Your task to perform on an android device: Open calendar and show me the first week of next month Image 0: 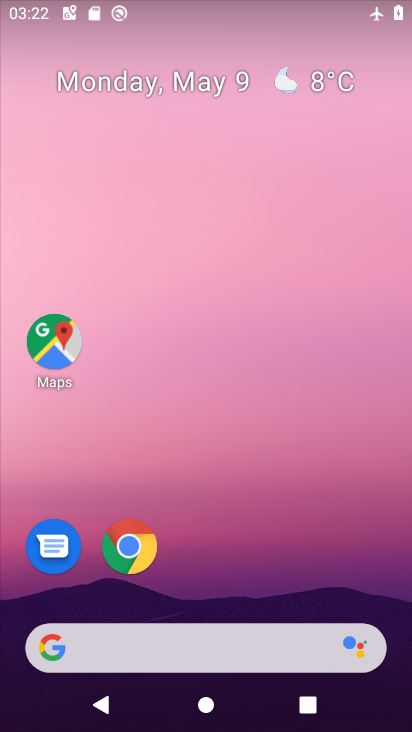
Step 0: drag from (301, 530) to (257, 115)
Your task to perform on an android device: Open calendar and show me the first week of next month Image 1: 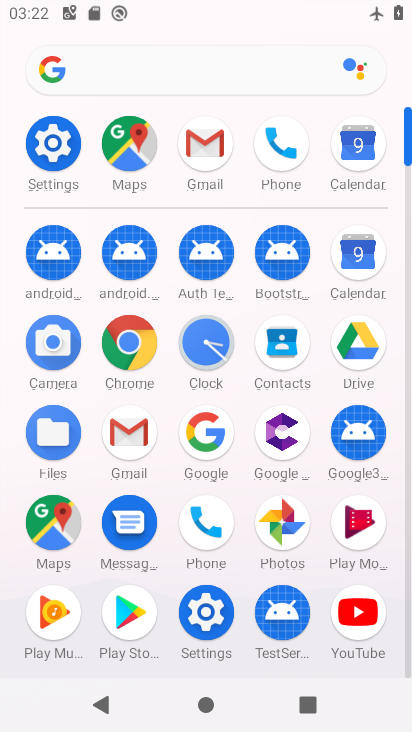
Step 1: click (357, 154)
Your task to perform on an android device: Open calendar and show me the first week of next month Image 2: 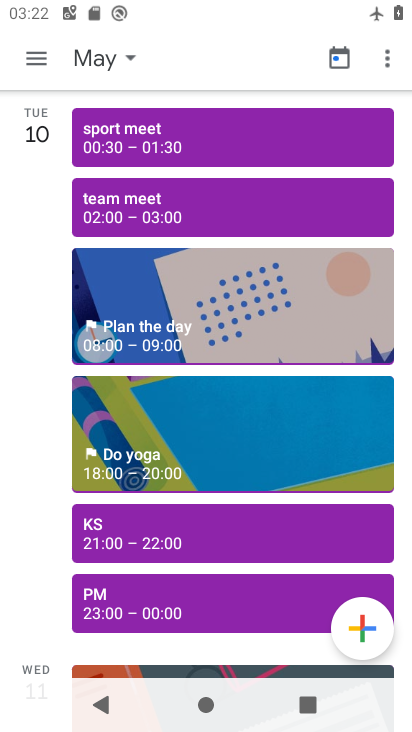
Step 2: click (38, 58)
Your task to perform on an android device: Open calendar and show me the first week of next month Image 3: 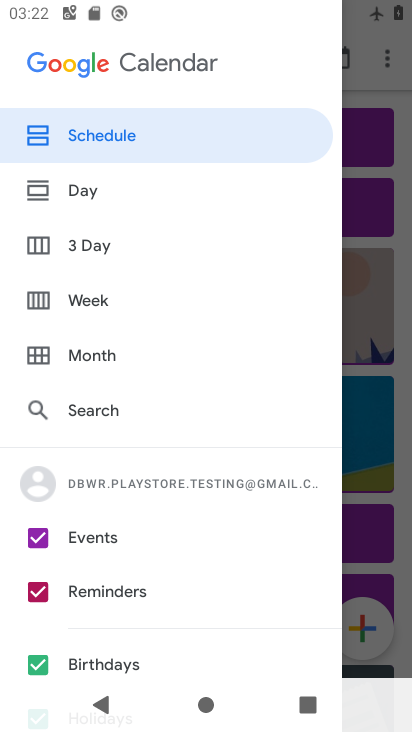
Step 3: click (73, 348)
Your task to perform on an android device: Open calendar and show me the first week of next month Image 4: 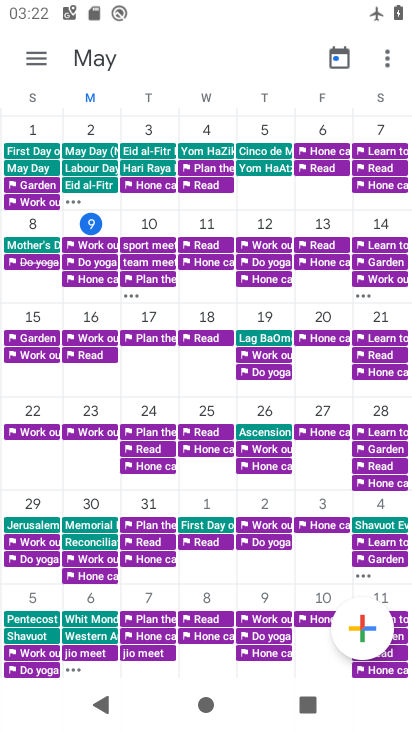
Step 4: drag from (351, 288) to (3, 270)
Your task to perform on an android device: Open calendar and show me the first week of next month Image 5: 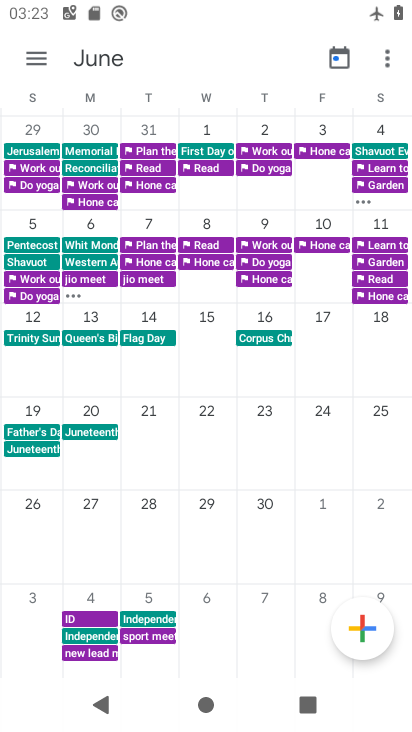
Step 5: click (30, 228)
Your task to perform on an android device: Open calendar and show me the first week of next month Image 6: 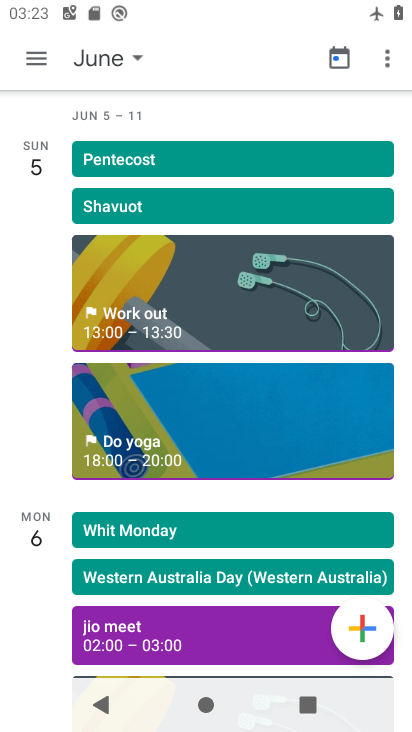
Step 6: click (40, 56)
Your task to perform on an android device: Open calendar and show me the first week of next month Image 7: 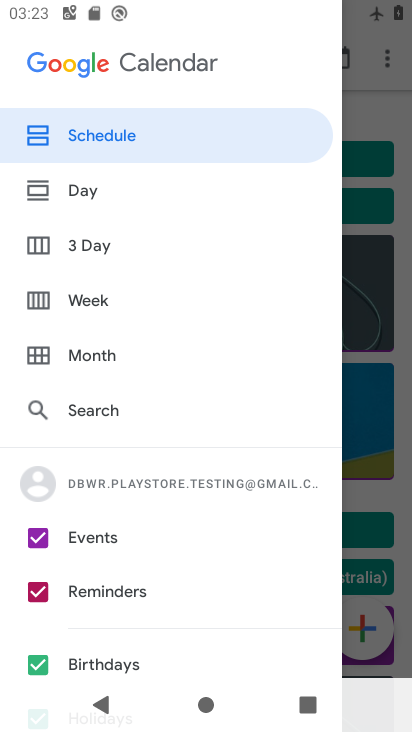
Step 7: click (90, 282)
Your task to perform on an android device: Open calendar and show me the first week of next month Image 8: 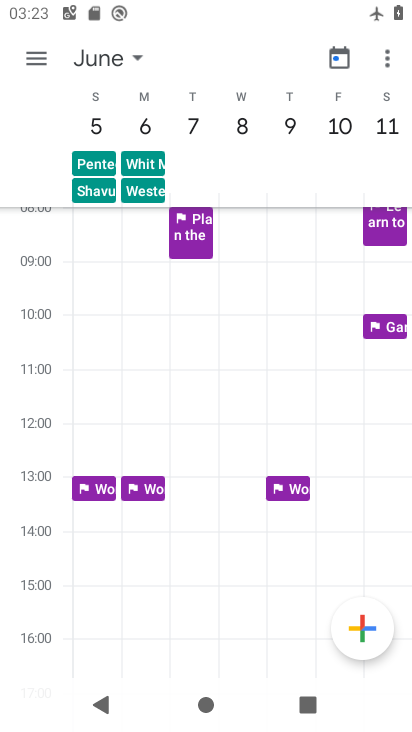
Step 8: task complete